Your task to perform on an android device: change the upload size in google photos Image 0: 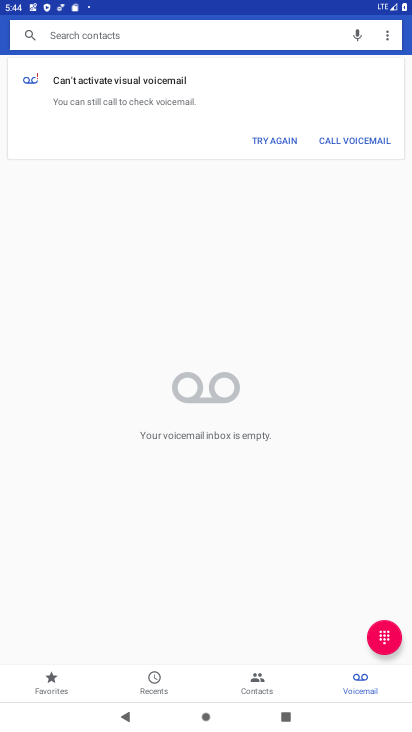
Step 0: press home button
Your task to perform on an android device: change the upload size in google photos Image 1: 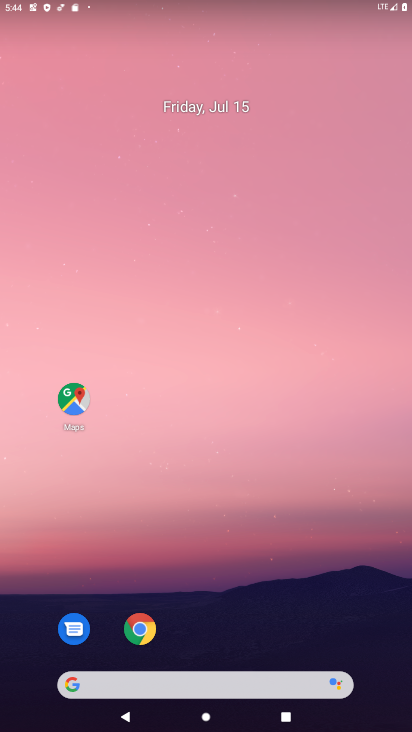
Step 1: drag from (280, 543) to (319, 42)
Your task to perform on an android device: change the upload size in google photos Image 2: 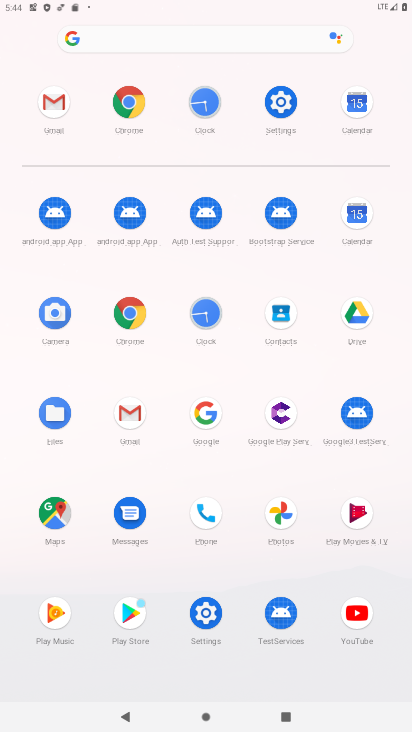
Step 2: click (270, 516)
Your task to perform on an android device: change the upload size in google photos Image 3: 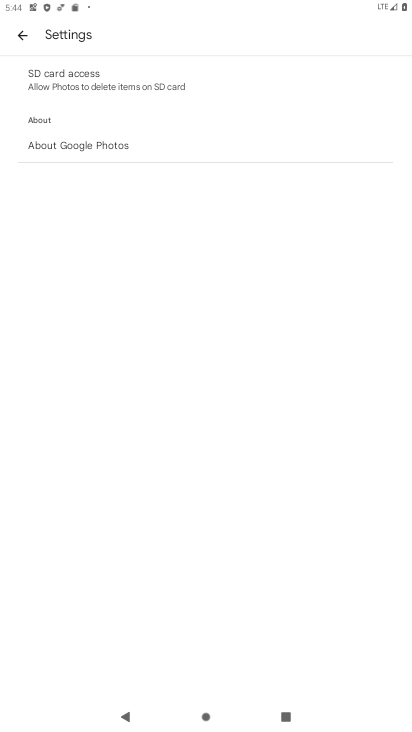
Step 3: click (26, 30)
Your task to perform on an android device: change the upload size in google photos Image 4: 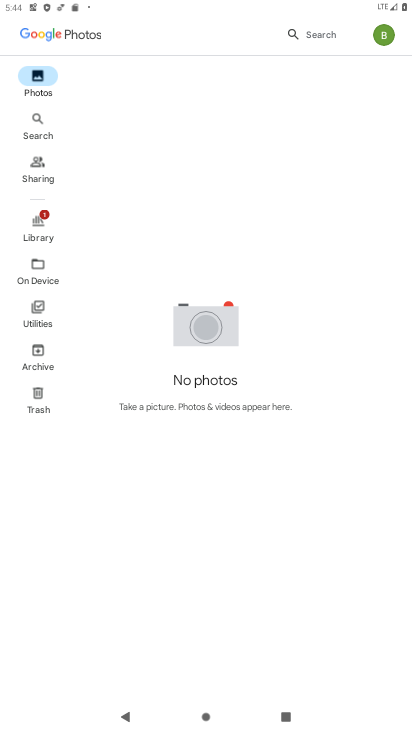
Step 4: click (381, 37)
Your task to perform on an android device: change the upload size in google photos Image 5: 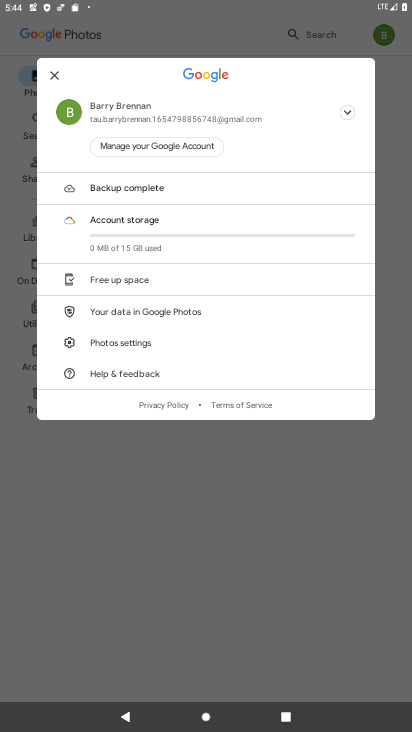
Step 5: click (107, 345)
Your task to perform on an android device: change the upload size in google photos Image 6: 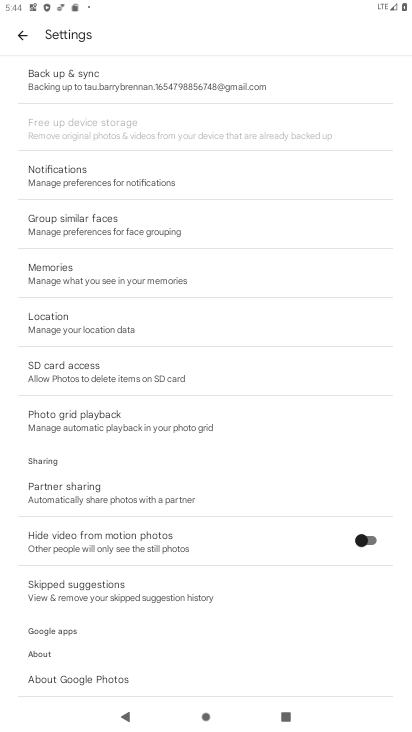
Step 6: click (107, 92)
Your task to perform on an android device: change the upload size in google photos Image 7: 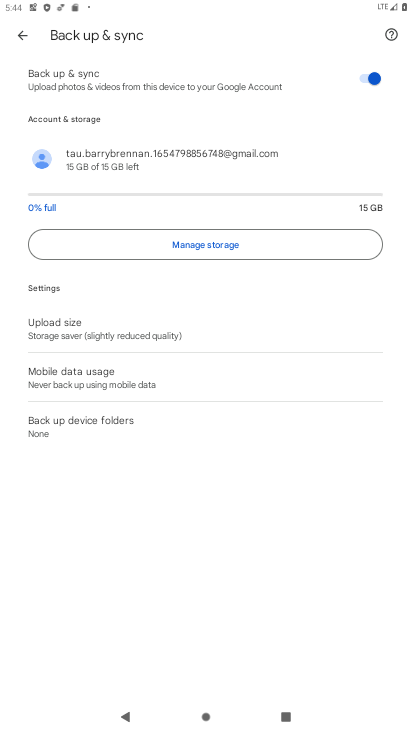
Step 7: click (73, 328)
Your task to perform on an android device: change the upload size in google photos Image 8: 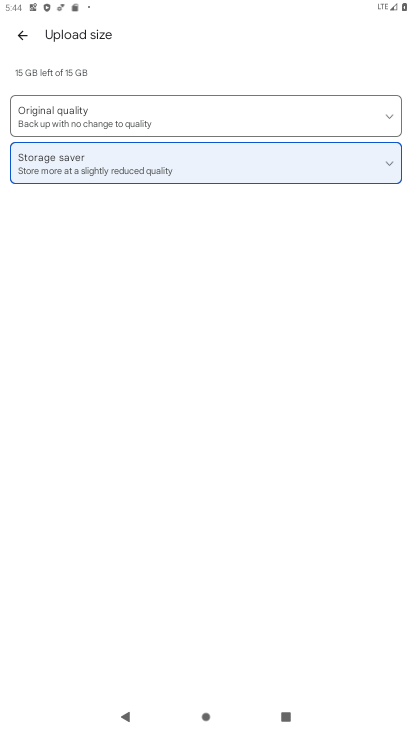
Step 8: click (113, 117)
Your task to perform on an android device: change the upload size in google photos Image 9: 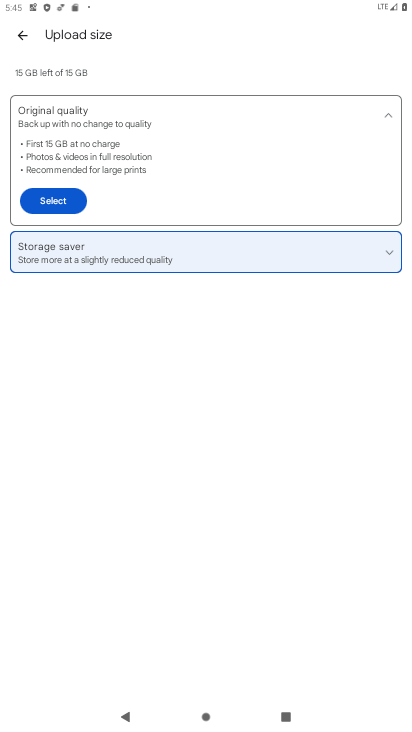
Step 9: click (65, 198)
Your task to perform on an android device: change the upload size in google photos Image 10: 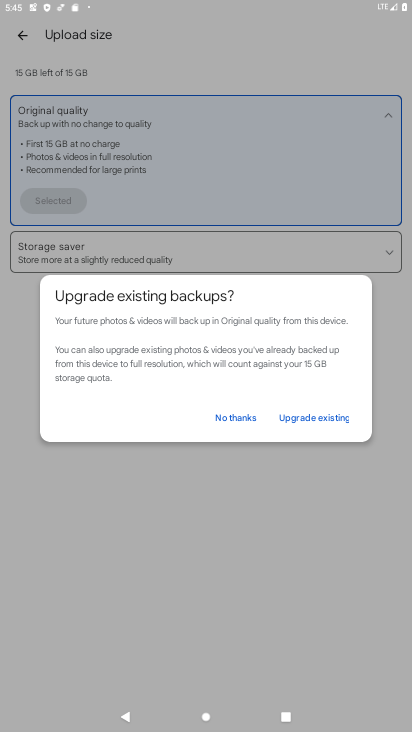
Step 10: task complete